Your task to perform on an android device: Search for seafood restaurants on Google Maps Image 0: 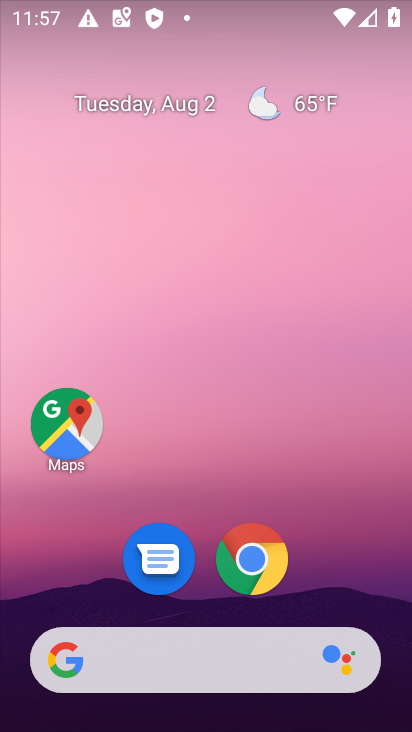
Step 0: drag from (209, 607) to (231, 151)
Your task to perform on an android device: Search for seafood restaurants on Google Maps Image 1: 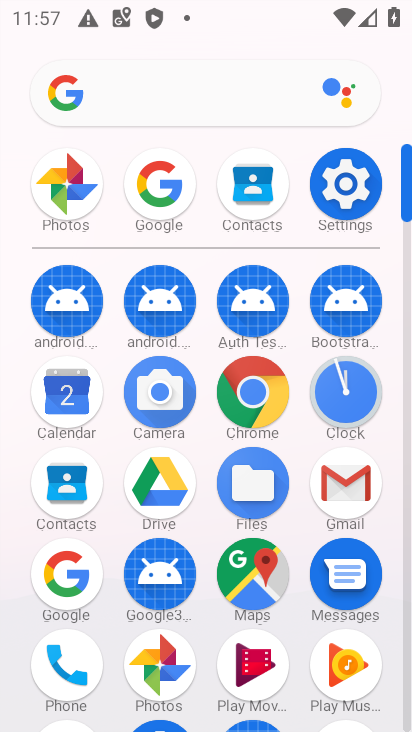
Step 1: click (247, 571)
Your task to perform on an android device: Search for seafood restaurants on Google Maps Image 2: 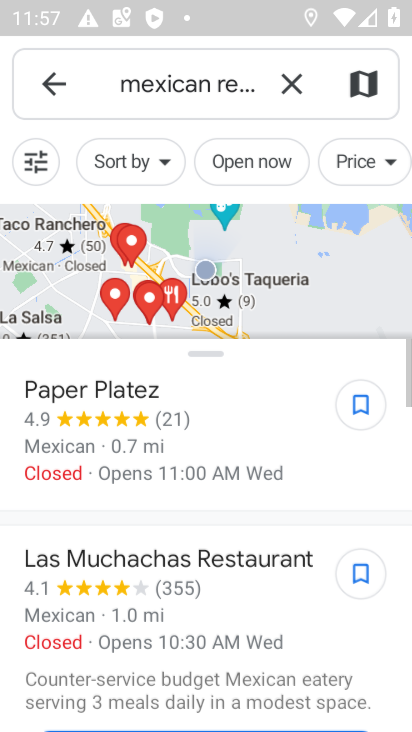
Step 2: click (290, 84)
Your task to perform on an android device: Search for seafood restaurants on Google Maps Image 3: 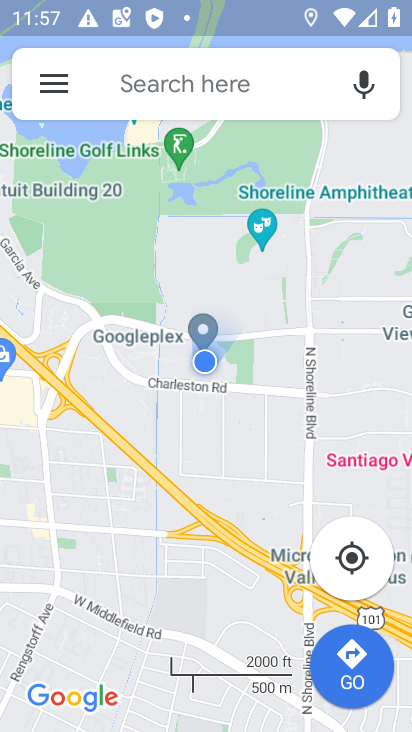
Step 3: click (213, 86)
Your task to perform on an android device: Search for seafood restaurants on Google Maps Image 4: 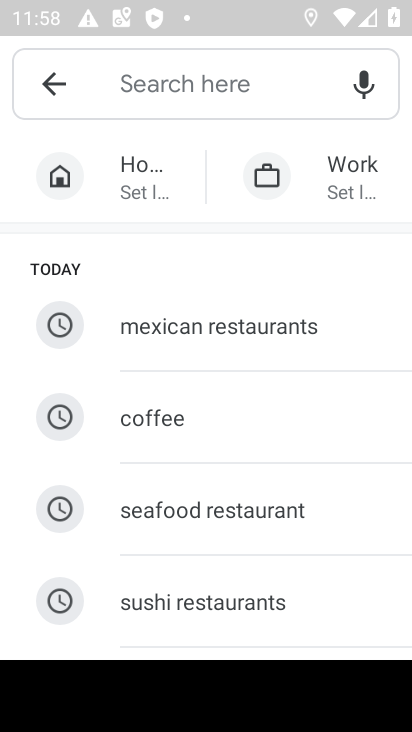
Step 4: type "seafood restaurants"
Your task to perform on an android device: Search for seafood restaurants on Google Maps Image 5: 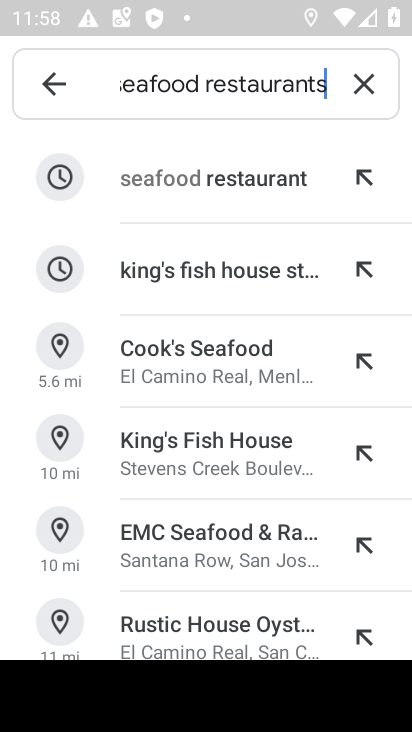
Step 5: click (239, 180)
Your task to perform on an android device: Search for seafood restaurants on Google Maps Image 6: 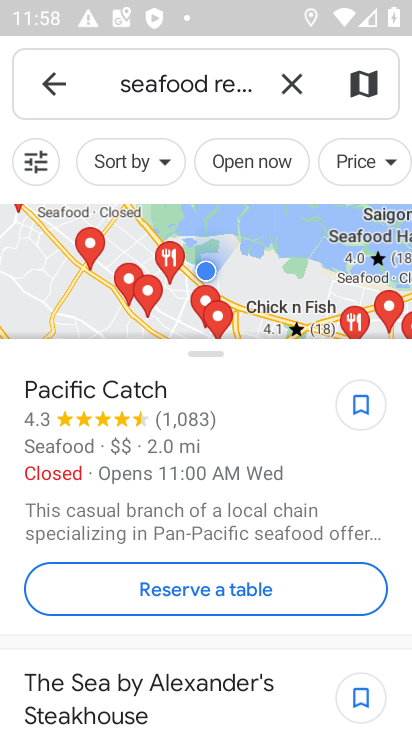
Step 6: task complete